Your task to perform on an android device: turn smart compose on in the gmail app Image 0: 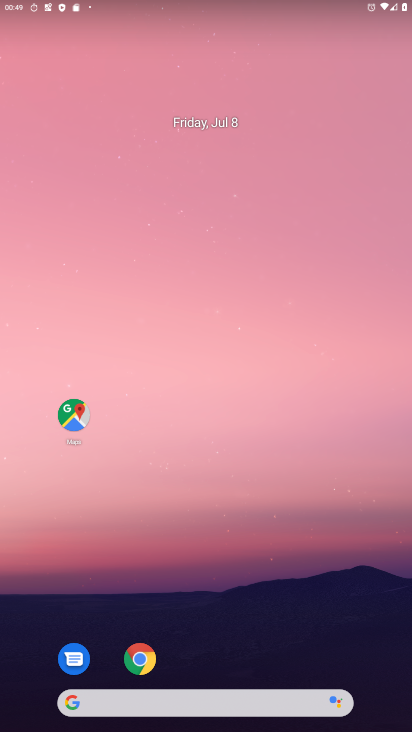
Step 0: drag from (198, 674) to (277, 2)
Your task to perform on an android device: turn smart compose on in the gmail app Image 1: 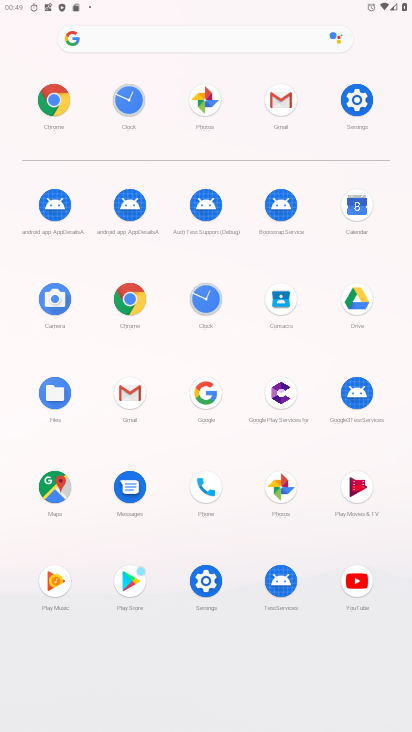
Step 1: click (283, 100)
Your task to perform on an android device: turn smart compose on in the gmail app Image 2: 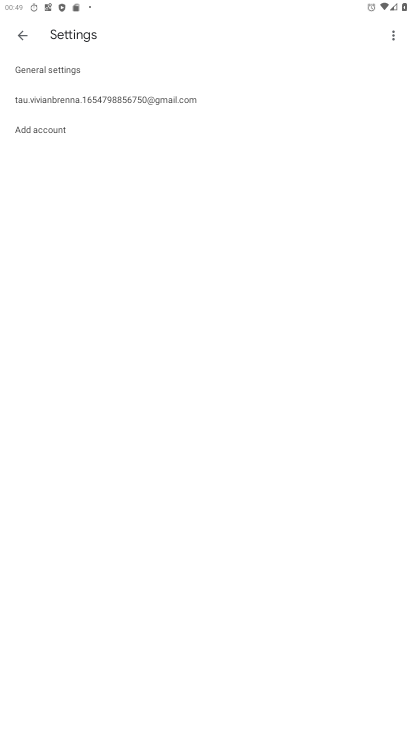
Step 2: click (283, 100)
Your task to perform on an android device: turn smart compose on in the gmail app Image 3: 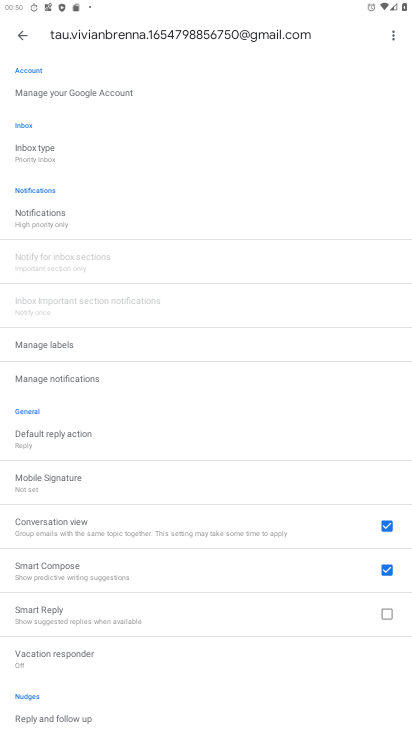
Step 3: task complete